Your task to perform on an android device: Do I have any events this weekend? Image 0: 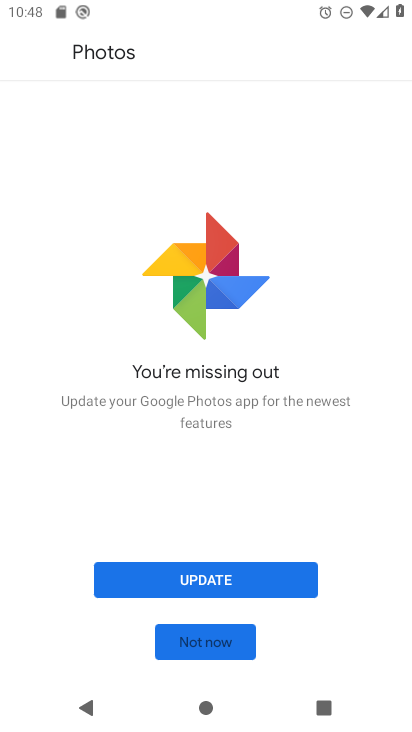
Step 0: press home button
Your task to perform on an android device: Do I have any events this weekend? Image 1: 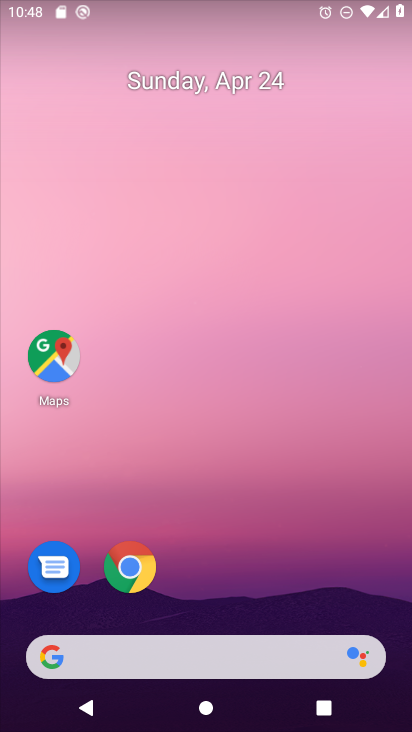
Step 1: drag from (97, 622) to (183, 216)
Your task to perform on an android device: Do I have any events this weekend? Image 2: 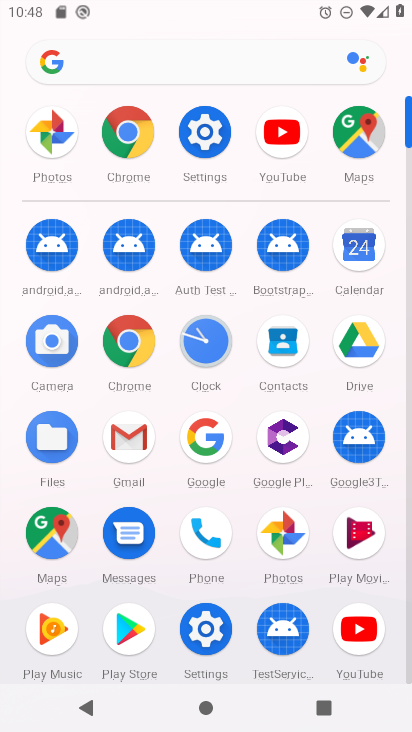
Step 2: click (350, 259)
Your task to perform on an android device: Do I have any events this weekend? Image 3: 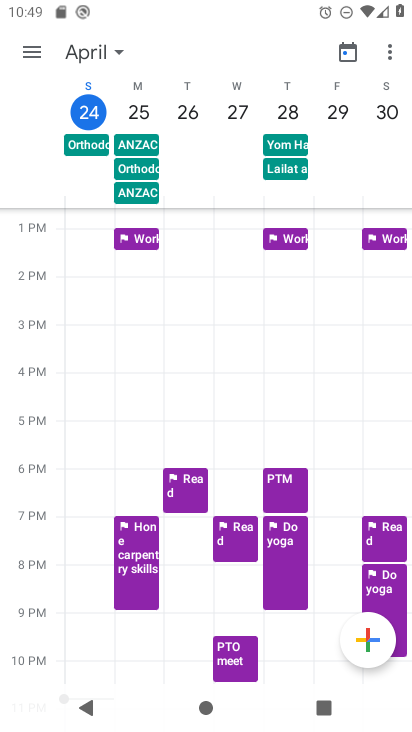
Step 3: click (116, 55)
Your task to perform on an android device: Do I have any events this weekend? Image 4: 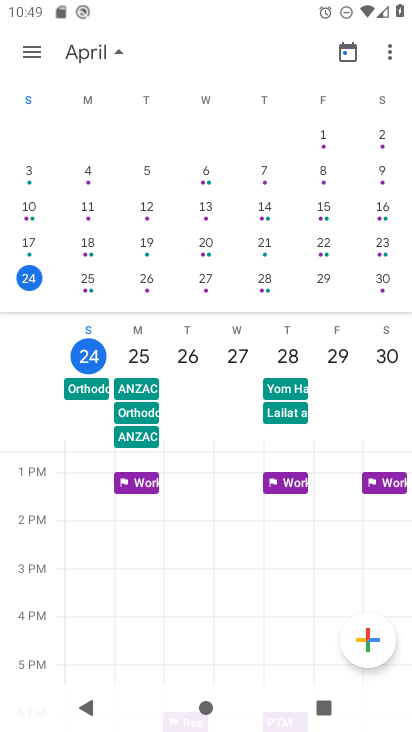
Step 4: click (384, 287)
Your task to perform on an android device: Do I have any events this weekend? Image 5: 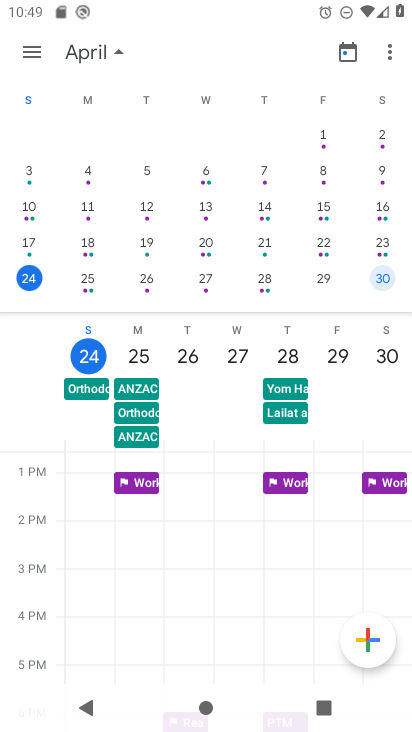
Step 5: drag from (401, 229) to (26, 226)
Your task to perform on an android device: Do I have any events this weekend? Image 6: 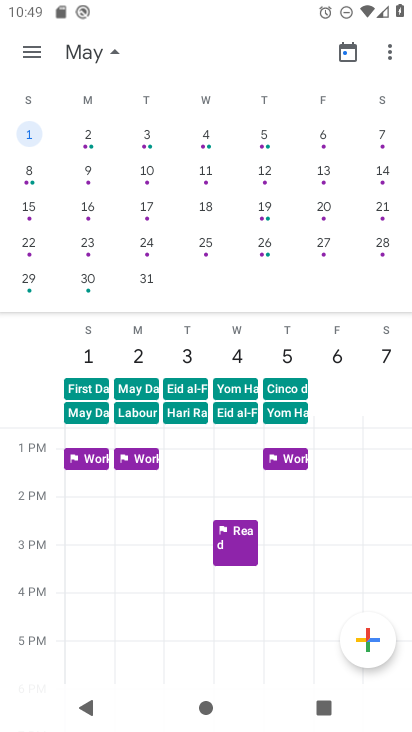
Step 6: click (29, 133)
Your task to perform on an android device: Do I have any events this weekend? Image 7: 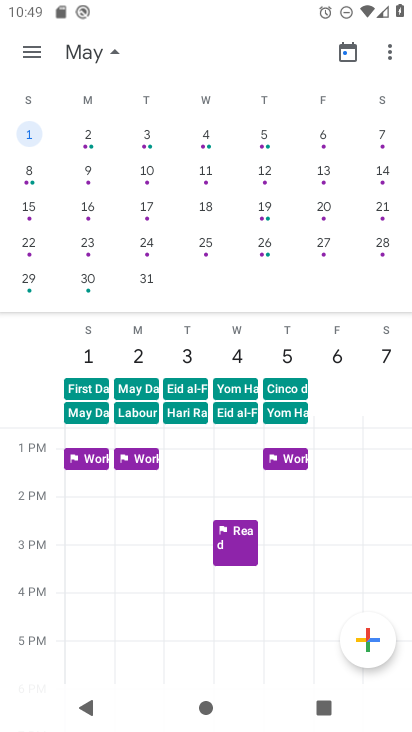
Step 7: task complete